Your task to perform on an android device: Show me popular games on the Play Store Image 0: 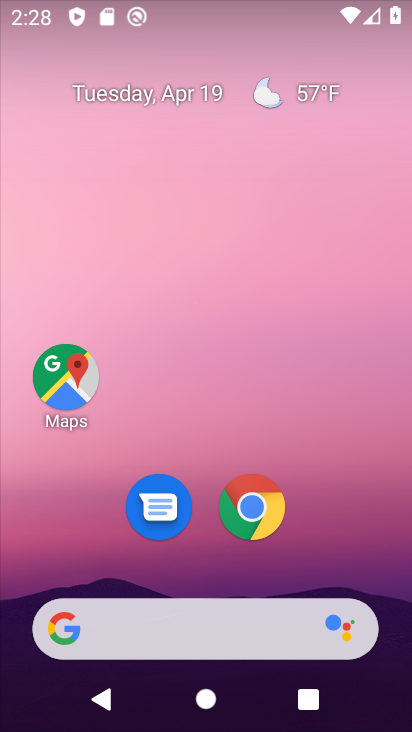
Step 0: drag from (203, 477) to (276, 207)
Your task to perform on an android device: Show me popular games on the Play Store Image 1: 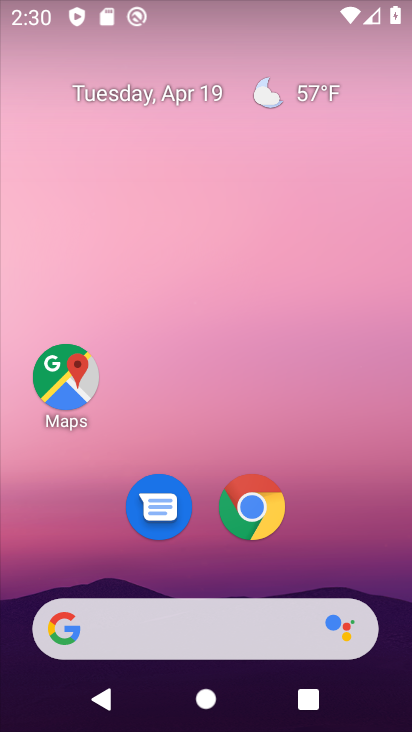
Step 1: drag from (225, 368) to (231, 7)
Your task to perform on an android device: Show me popular games on the Play Store Image 2: 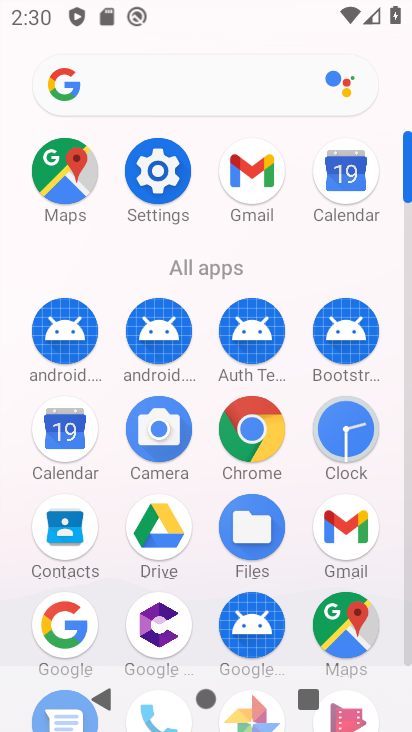
Step 2: drag from (215, 578) to (272, 184)
Your task to perform on an android device: Show me popular games on the Play Store Image 3: 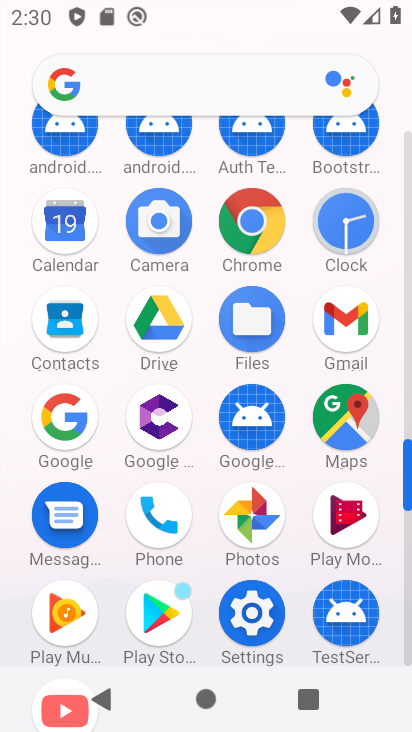
Step 3: click (166, 605)
Your task to perform on an android device: Show me popular games on the Play Store Image 4: 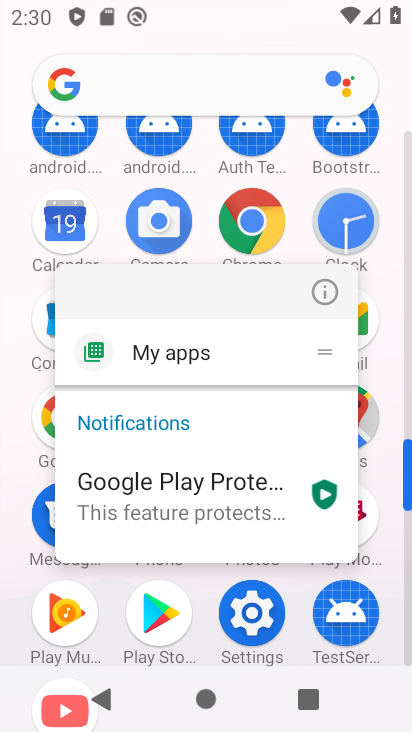
Step 4: click (162, 611)
Your task to perform on an android device: Show me popular games on the Play Store Image 5: 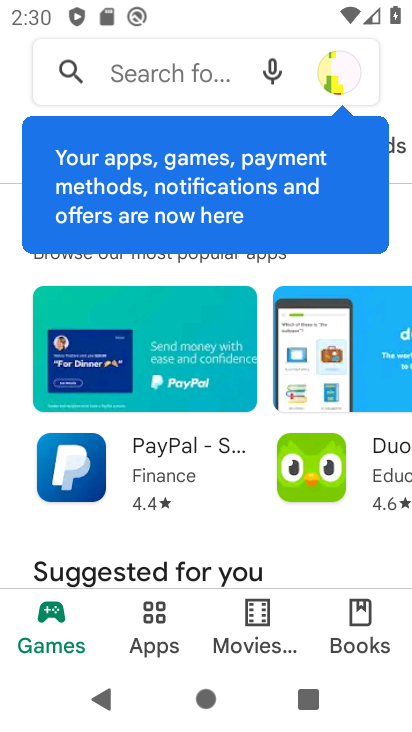
Step 5: task complete